Your task to perform on an android device: find which apps use the phone's location Image 0: 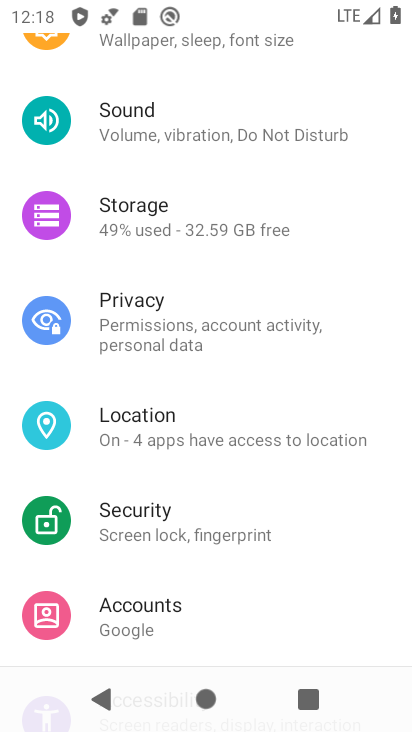
Step 0: click (158, 424)
Your task to perform on an android device: find which apps use the phone's location Image 1: 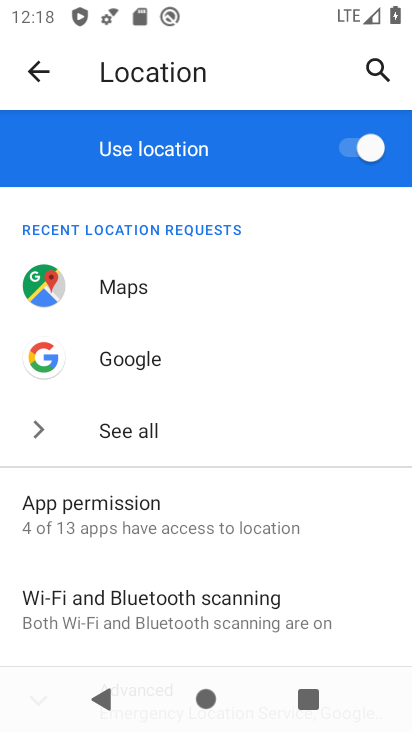
Step 1: click (132, 509)
Your task to perform on an android device: find which apps use the phone's location Image 2: 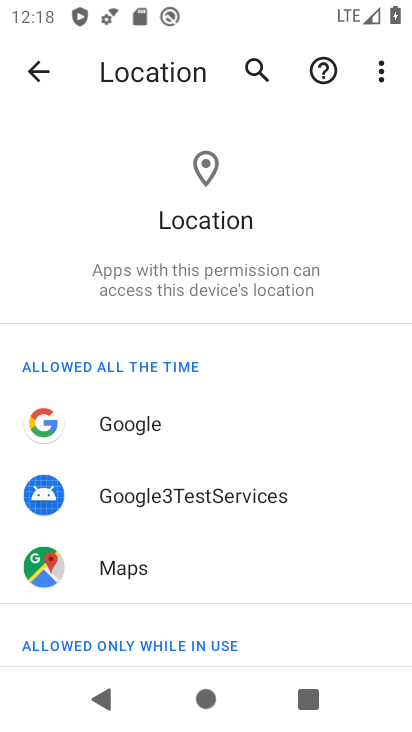
Step 2: task complete